Your task to perform on an android device: Check the weather Image 0: 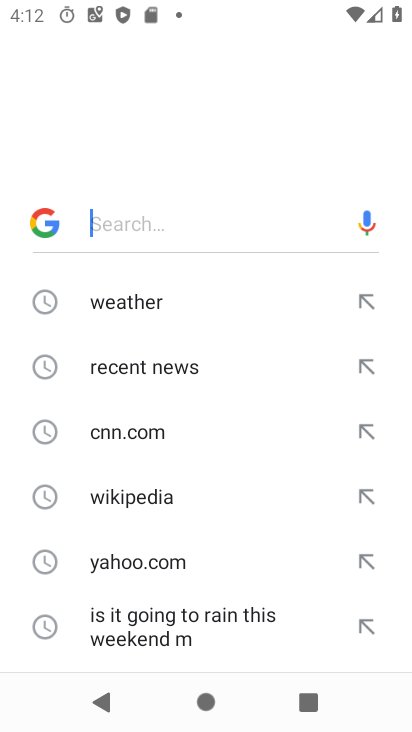
Step 0: press home button
Your task to perform on an android device: Check the weather Image 1: 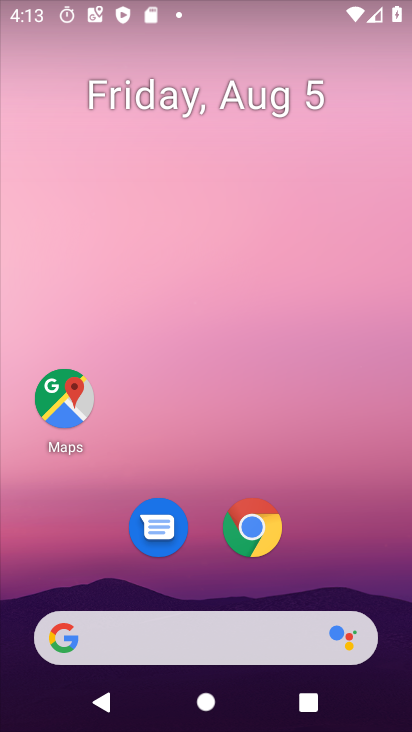
Step 1: drag from (213, 587) to (219, 123)
Your task to perform on an android device: Check the weather Image 2: 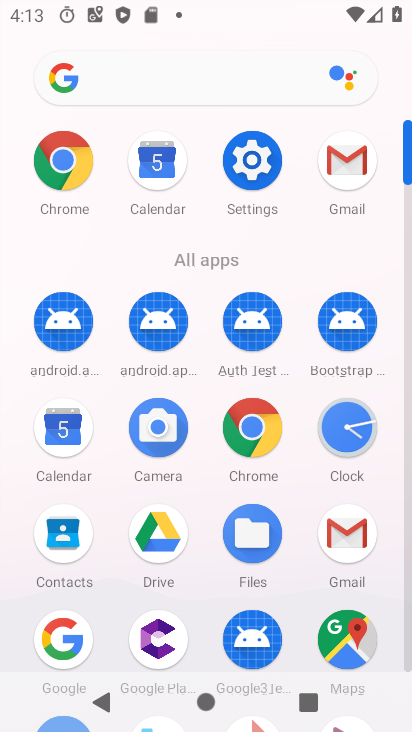
Step 2: press home button
Your task to perform on an android device: Check the weather Image 3: 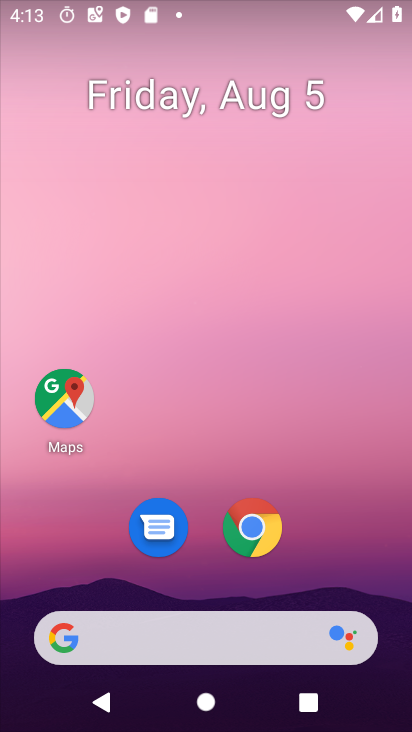
Step 3: drag from (50, 262) to (411, 303)
Your task to perform on an android device: Check the weather Image 4: 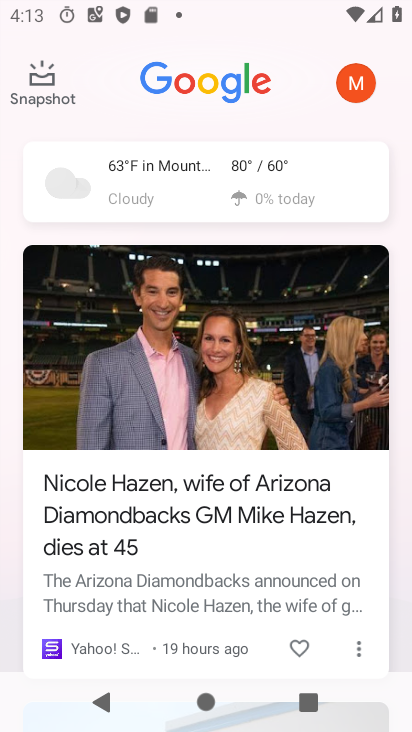
Step 4: click (243, 174)
Your task to perform on an android device: Check the weather Image 5: 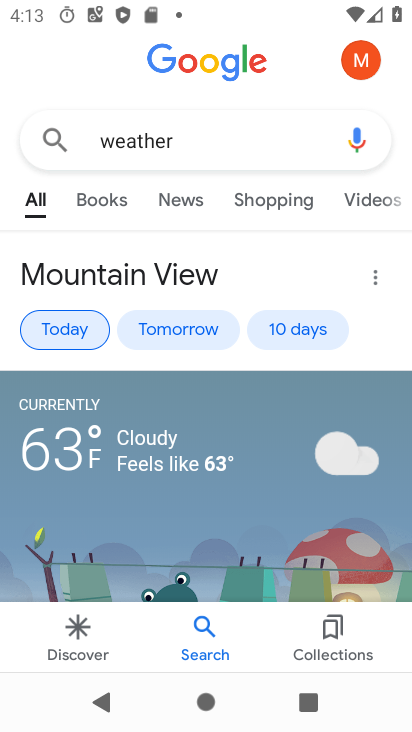
Step 5: task complete